Your task to perform on an android device: turn off translation in the chrome app Image 0: 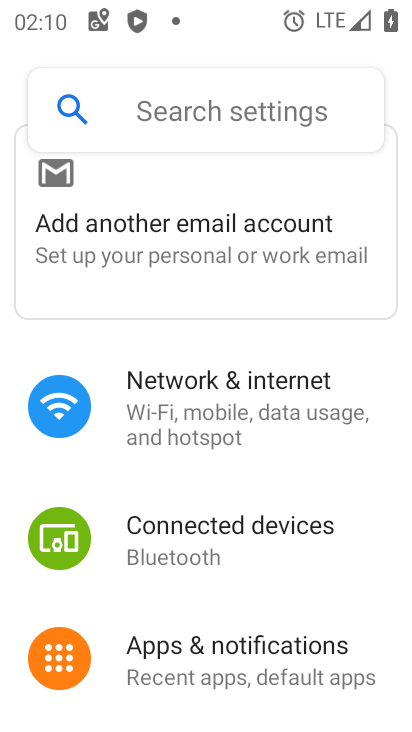
Step 0: press home button
Your task to perform on an android device: turn off translation in the chrome app Image 1: 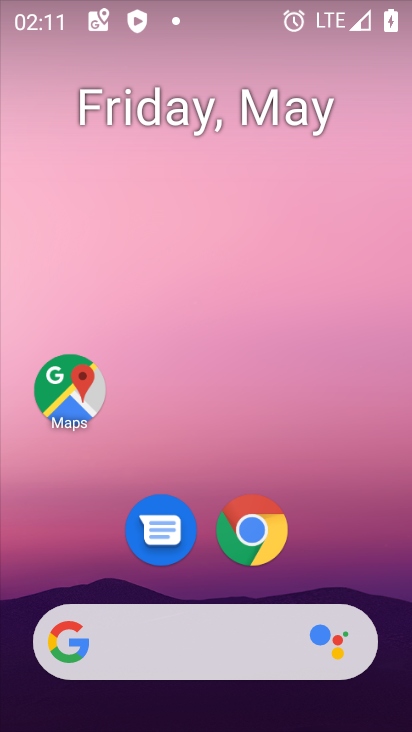
Step 1: click (249, 524)
Your task to perform on an android device: turn off translation in the chrome app Image 2: 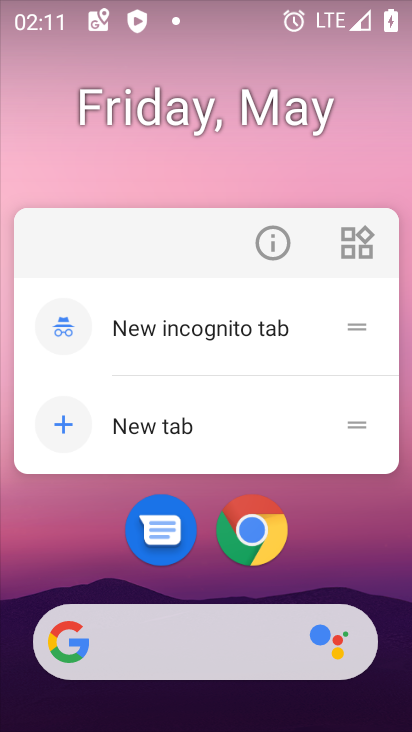
Step 2: click (243, 519)
Your task to perform on an android device: turn off translation in the chrome app Image 3: 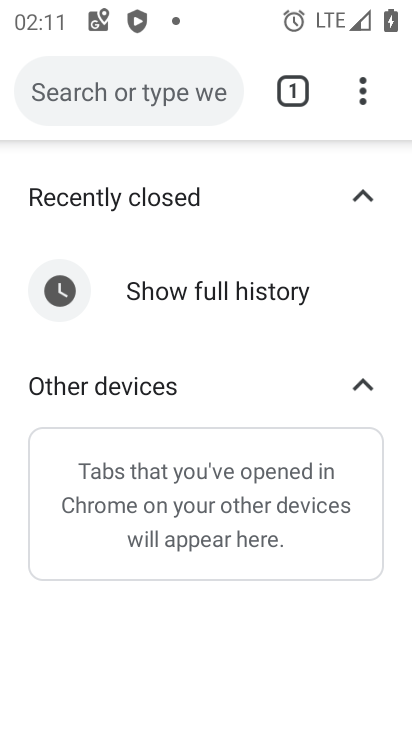
Step 3: click (364, 91)
Your task to perform on an android device: turn off translation in the chrome app Image 4: 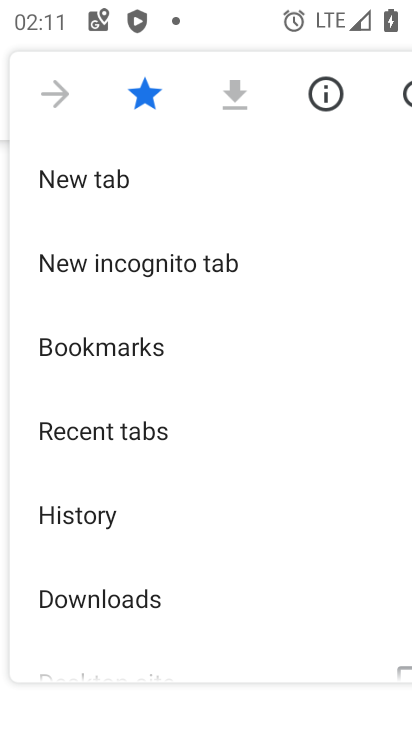
Step 4: drag from (188, 644) to (174, 289)
Your task to perform on an android device: turn off translation in the chrome app Image 5: 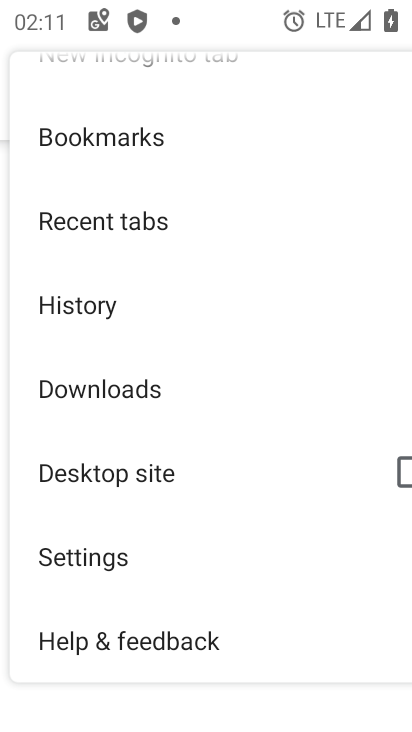
Step 5: click (129, 562)
Your task to perform on an android device: turn off translation in the chrome app Image 6: 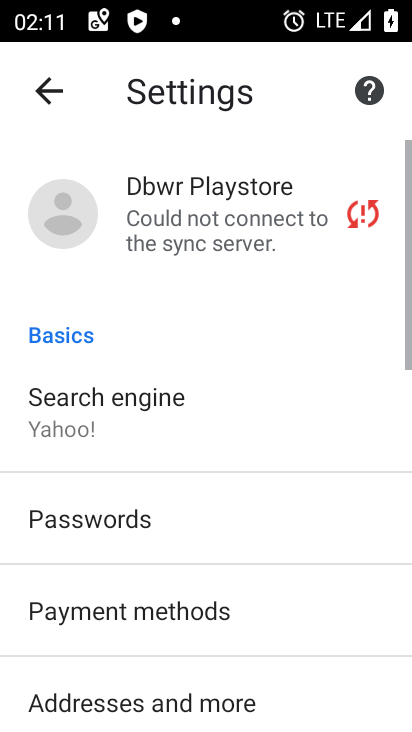
Step 6: drag from (220, 615) to (211, 345)
Your task to perform on an android device: turn off translation in the chrome app Image 7: 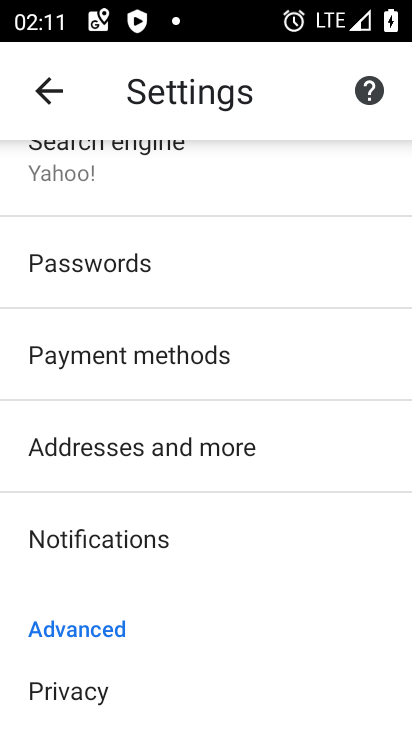
Step 7: drag from (202, 665) to (195, 392)
Your task to perform on an android device: turn off translation in the chrome app Image 8: 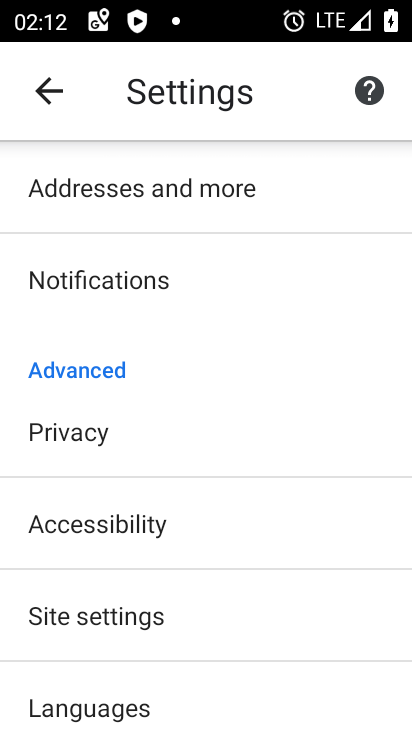
Step 8: click (146, 694)
Your task to perform on an android device: turn off translation in the chrome app Image 9: 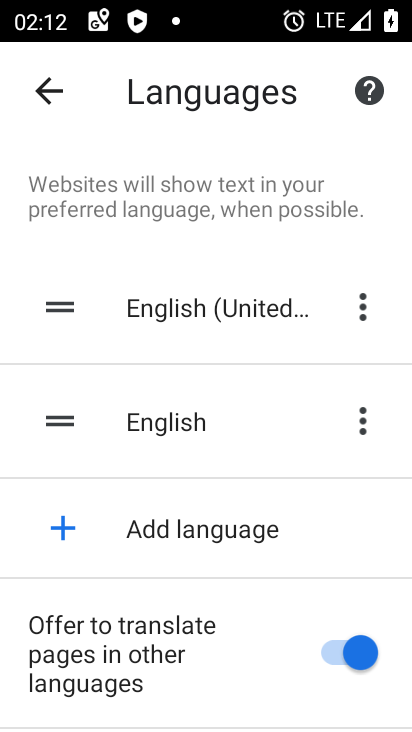
Step 9: click (340, 647)
Your task to perform on an android device: turn off translation in the chrome app Image 10: 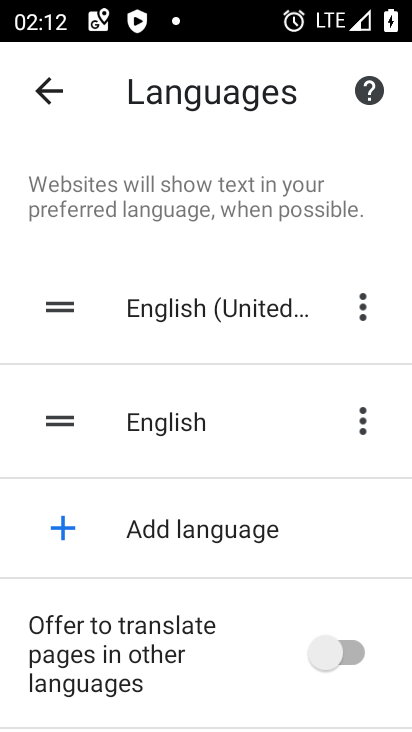
Step 10: task complete